Your task to perform on an android device: What is the recent news? Image 0: 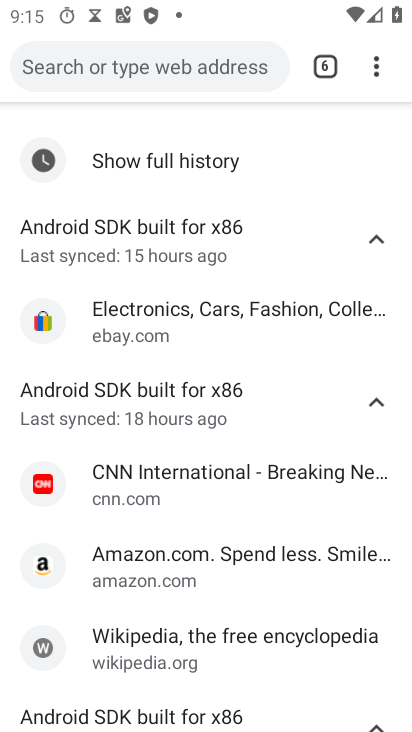
Step 0: press home button
Your task to perform on an android device: What is the recent news? Image 1: 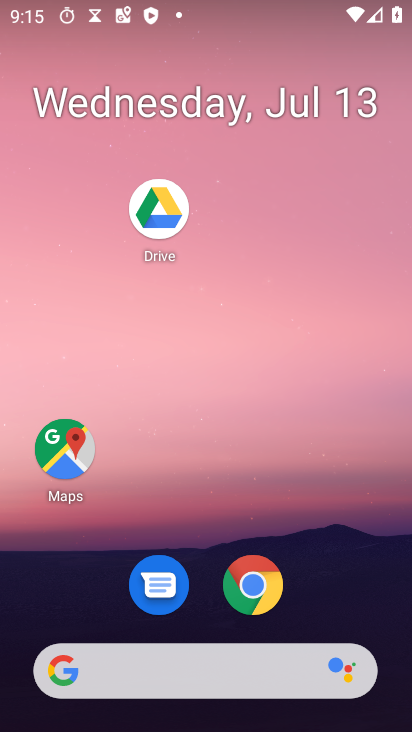
Step 1: click (175, 672)
Your task to perform on an android device: What is the recent news? Image 2: 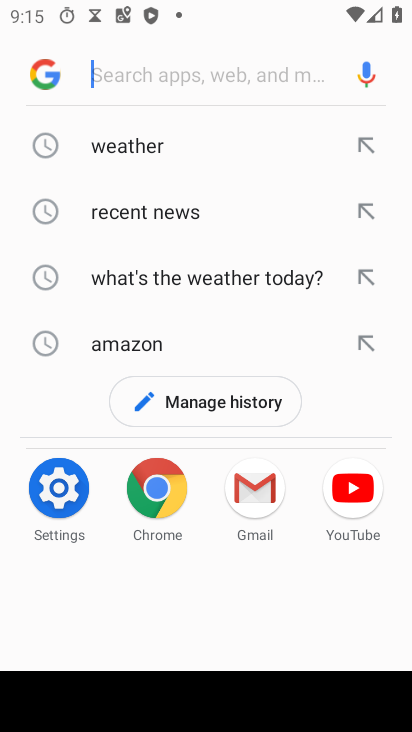
Step 2: click (165, 214)
Your task to perform on an android device: What is the recent news? Image 3: 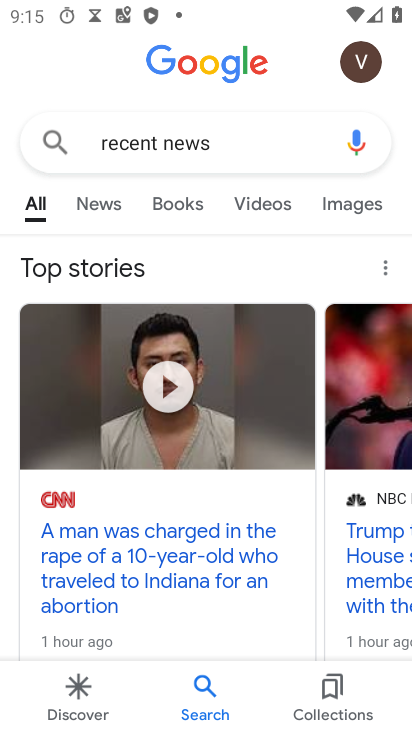
Step 3: click (96, 205)
Your task to perform on an android device: What is the recent news? Image 4: 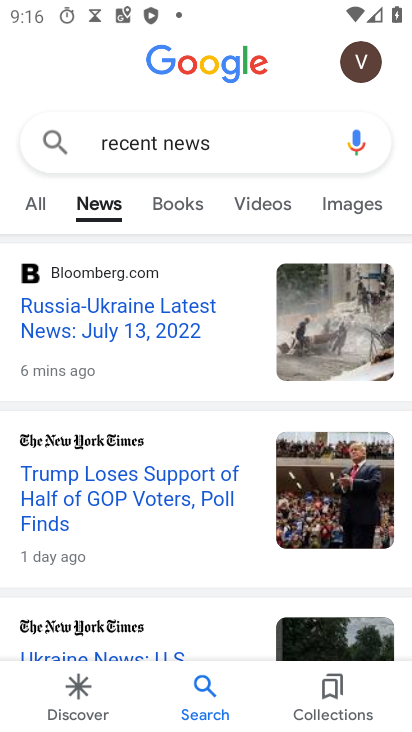
Step 4: task complete